Your task to perform on an android device: Look up "custom art" on Etsy Image 0: 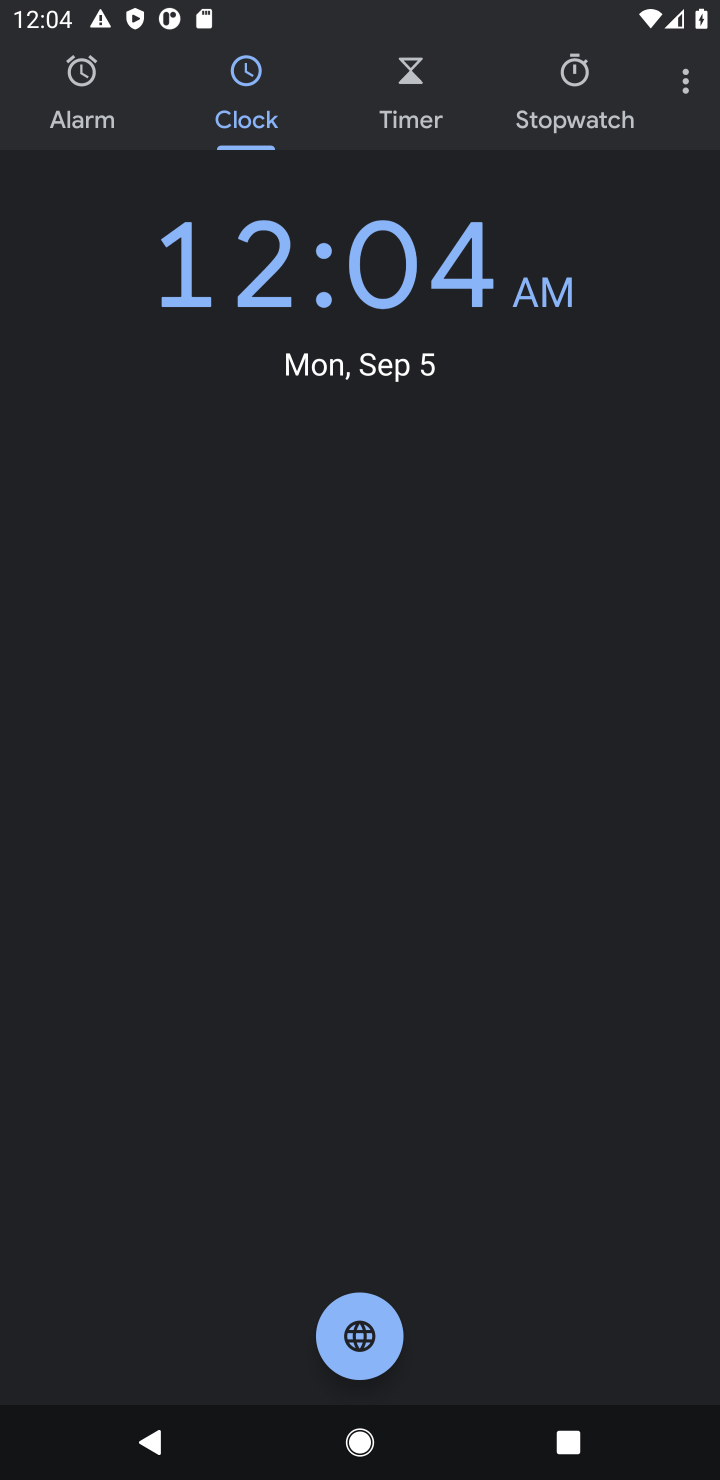
Step 0: press home button
Your task to perform on an android device: Look up "custom art" on Etsy Image 1: 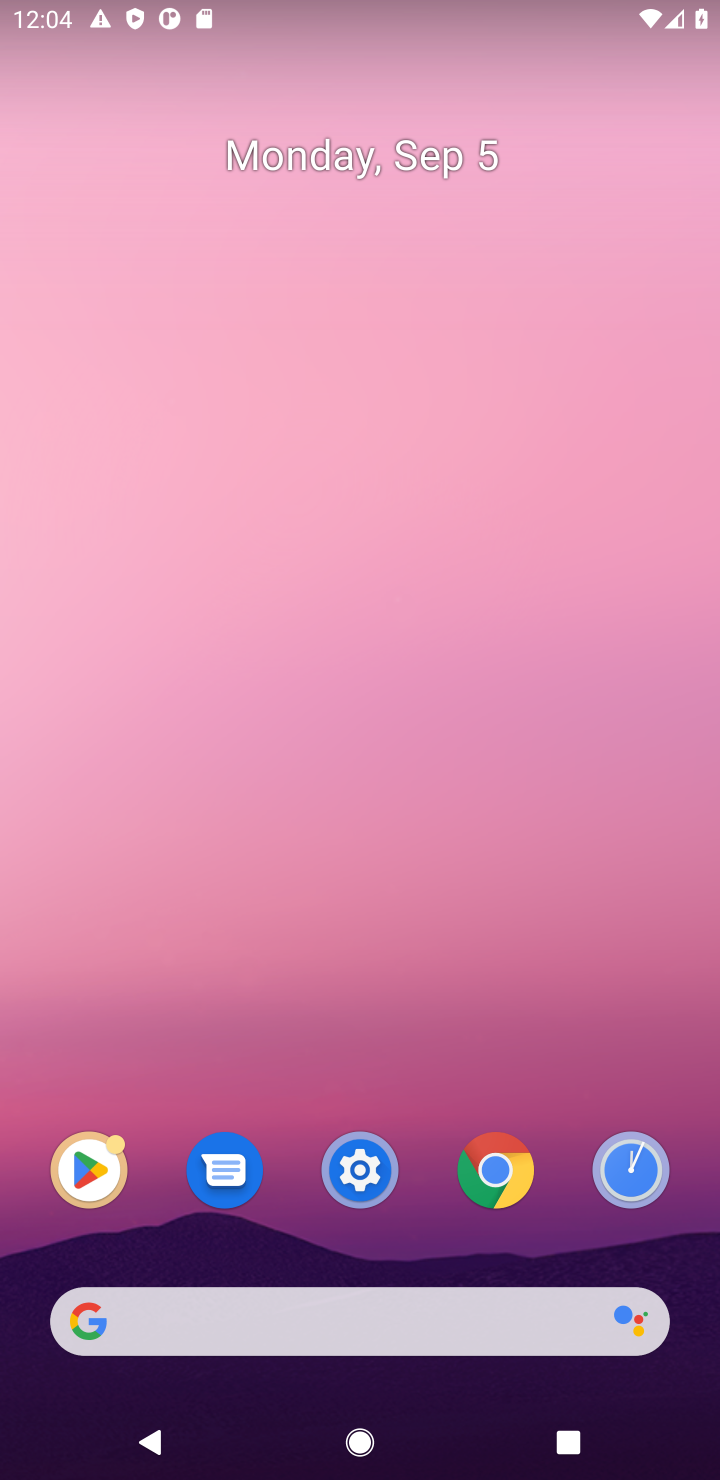
Step 1: click (491, 1324)
Your task to perform on an android device: Look up "custom art" on Etsy Image 2: 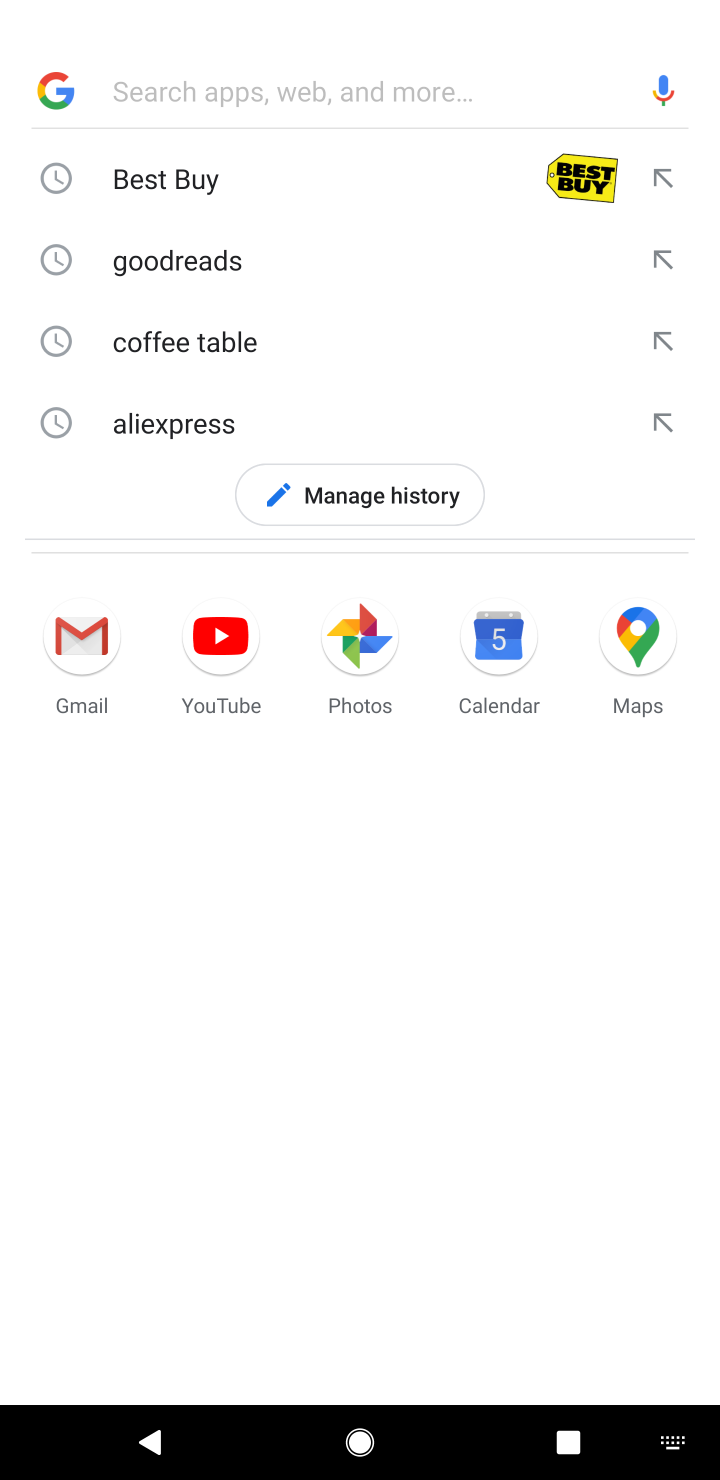
Step 2: type "Etsy"
Your task to perform on an android device: Look up "custom art" on Etsy Image 3: 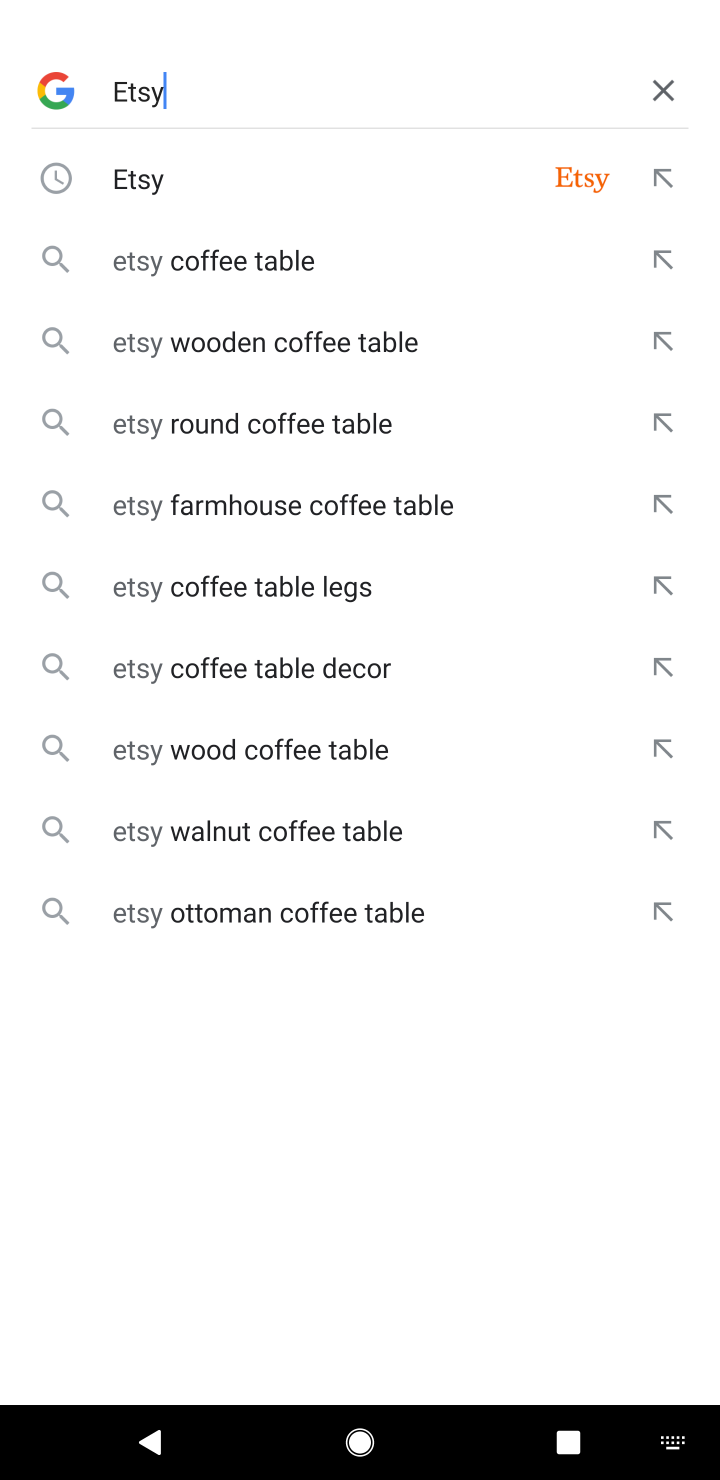
Step 3: click (450, 156)
Your task to perform on an android device: Look up "custom art" on Etsy Image 4: 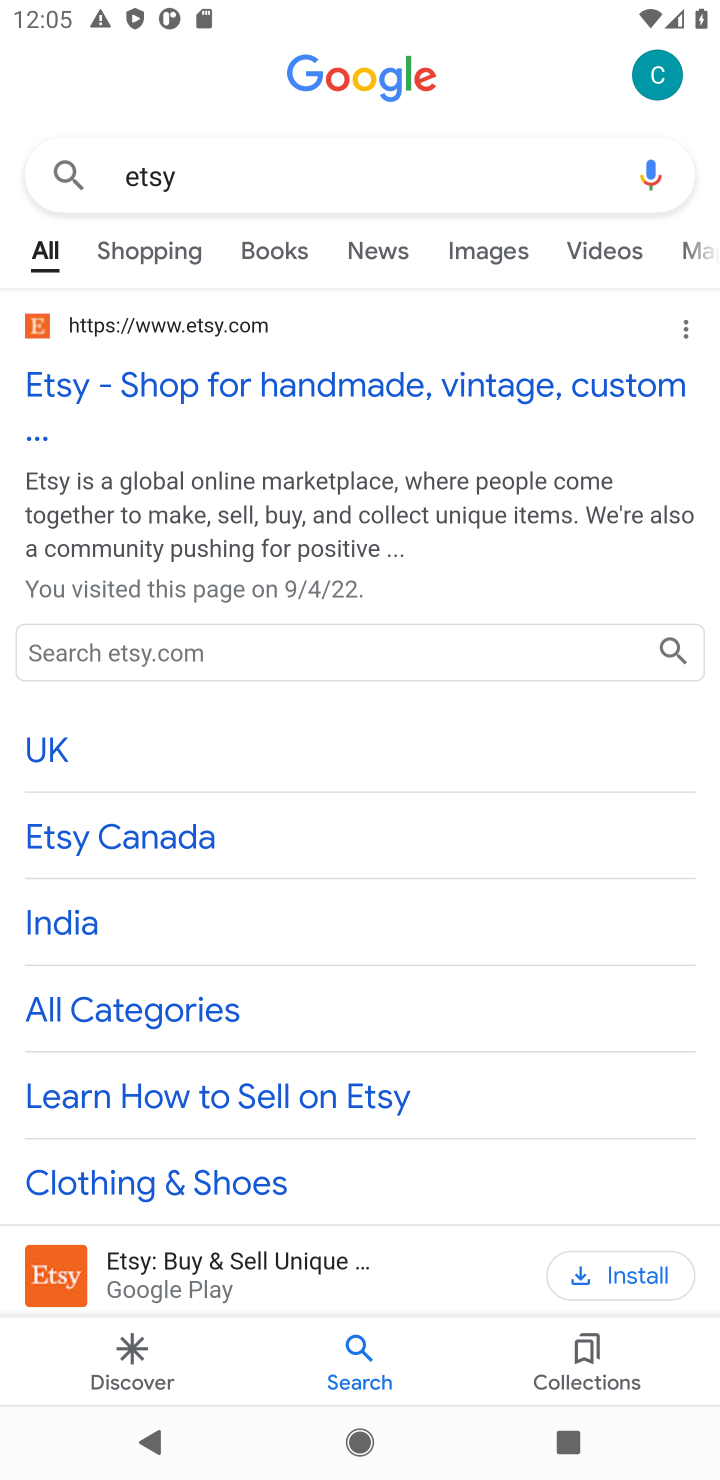
Step 4: click (221, 377)
Your task to perform on an android device: Look up "custom art" on Etsy Image 5: 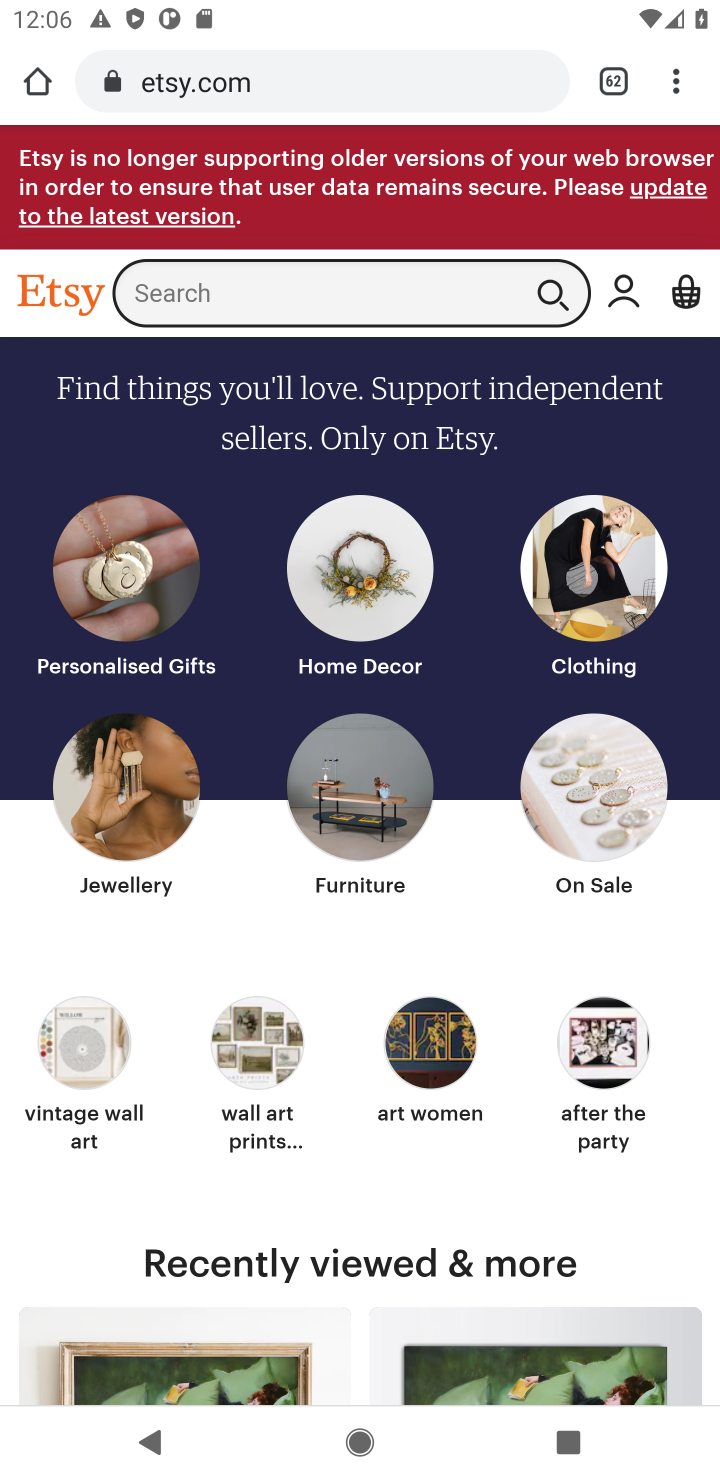
Step 5: type "custom art"
Your task to perform on an android device: Look up "custom art" on Etsy Image 6: 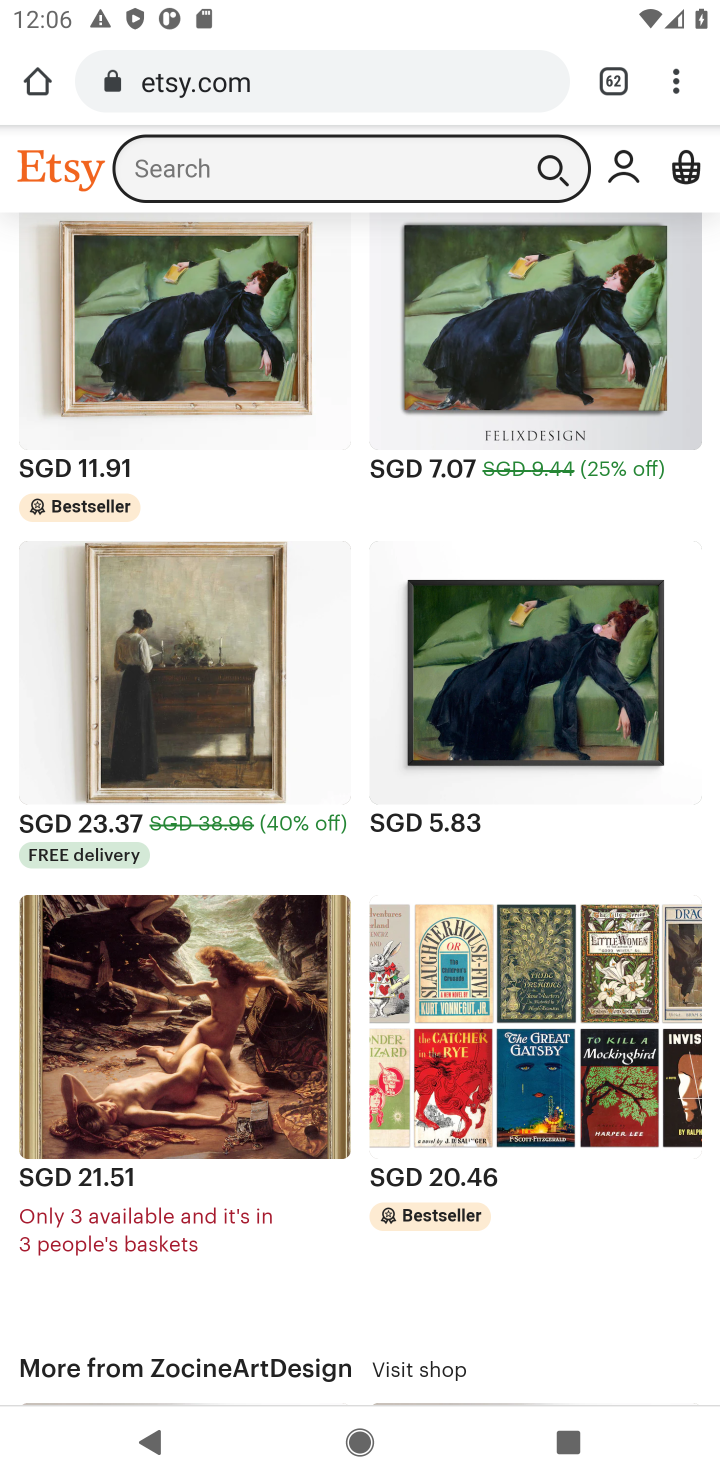
Step 6: click (309, 173)
Your task to perform on an android device: Look up "custom art" on Etsy Image 7: 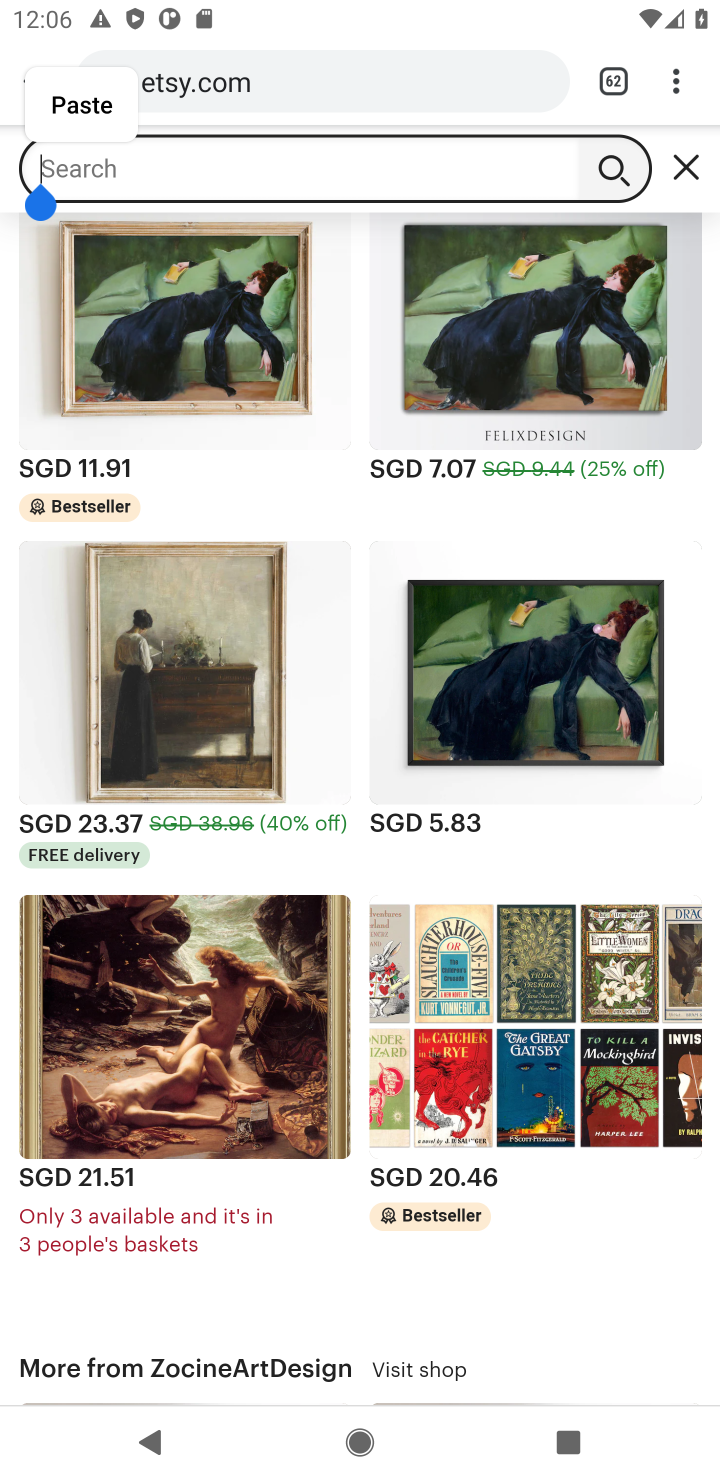
Step 7: type "custom art"
Your task to perform on an android device: Look up "custom art" on Etsy Image 8: 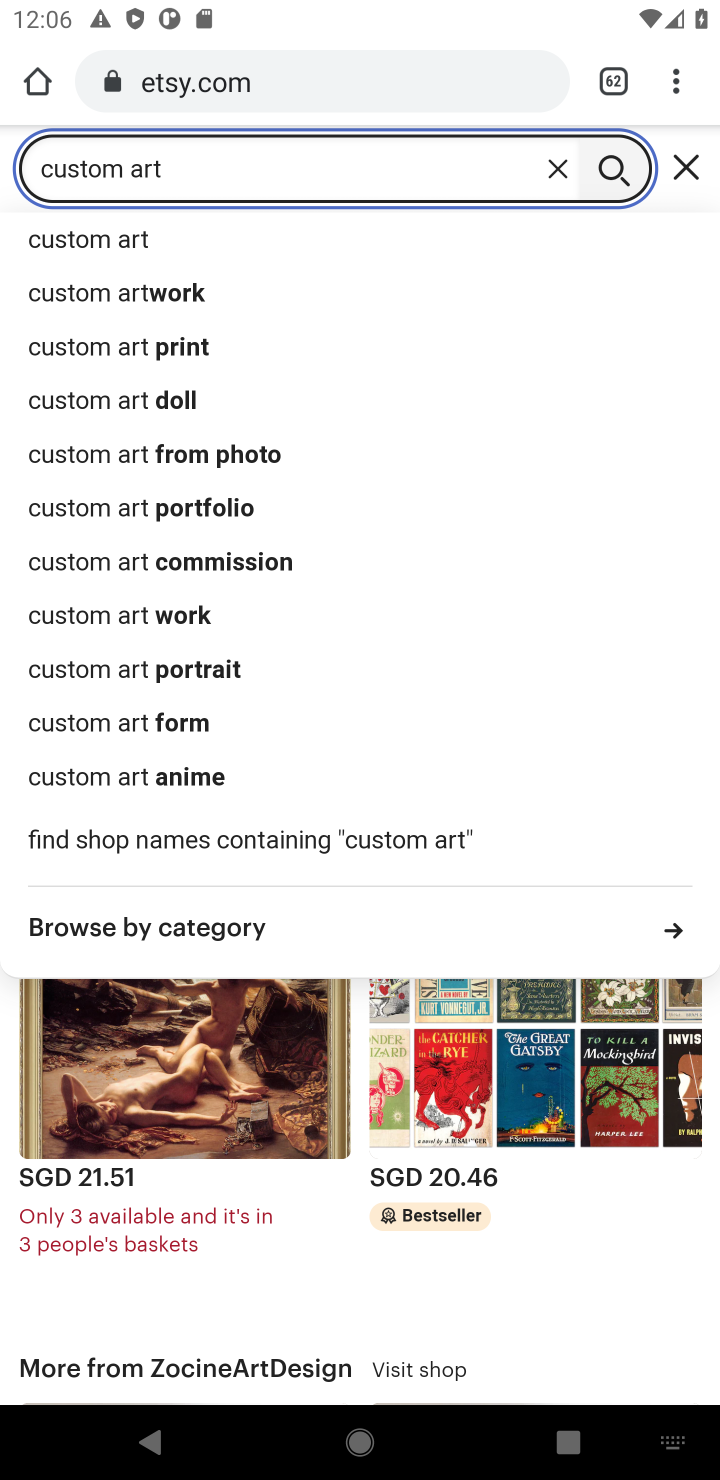
Step 8: click (147, 229)
Your task to perform on an android device: Look up "custom art" on Etsy Image 9: 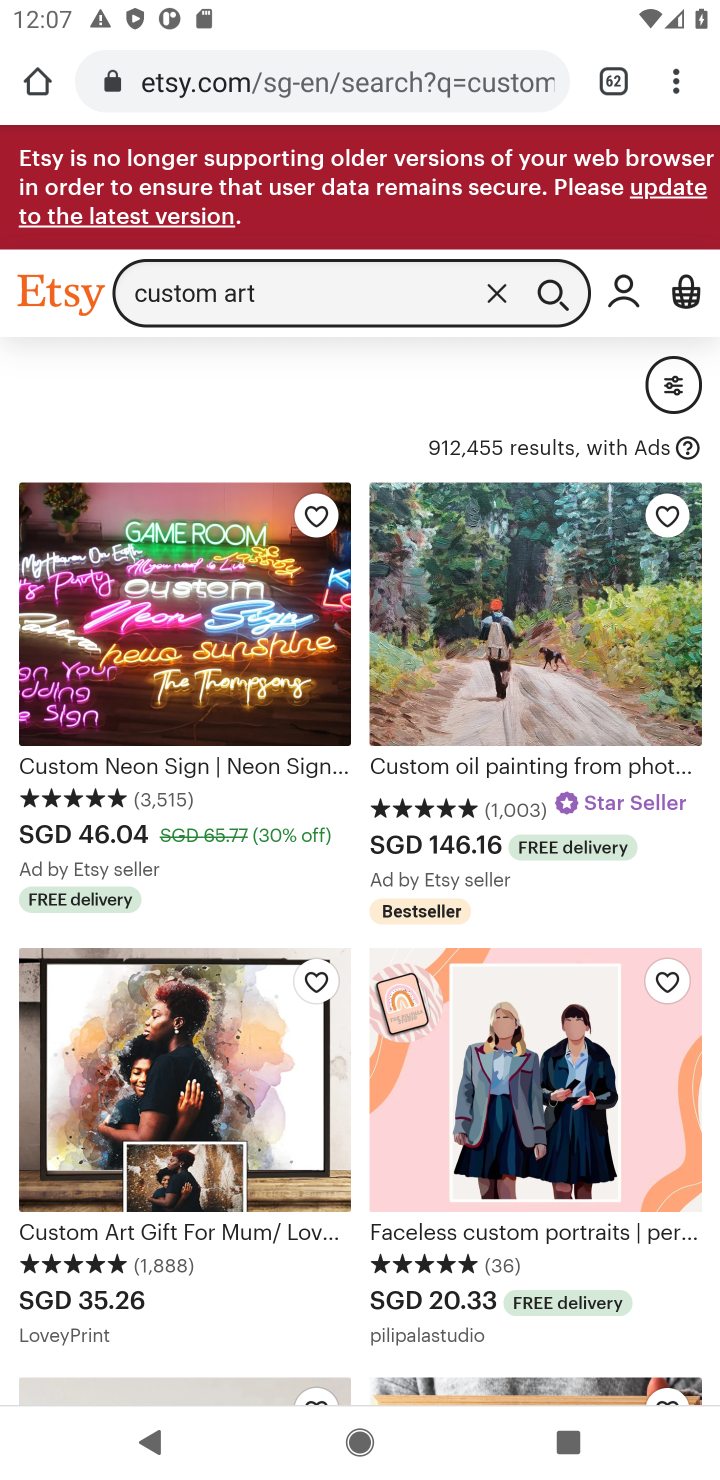
Step 9: task complete